Your task to perform on an android device: toggle improve location accuracy Image 0: 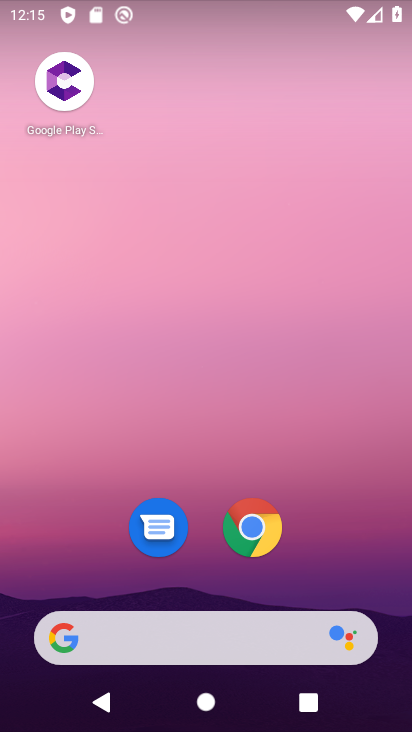
Step 0: drag from (212, 593) to (267, 16)
Your task to perform on an android device: toggle improve location accuracy Image 1: 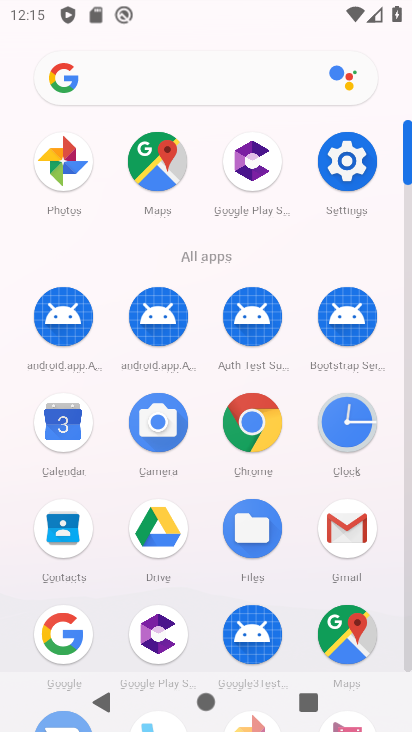
Step 1: click (351, 160)
Your task to perform on an android device: toggle improve location accuracy Image 2: 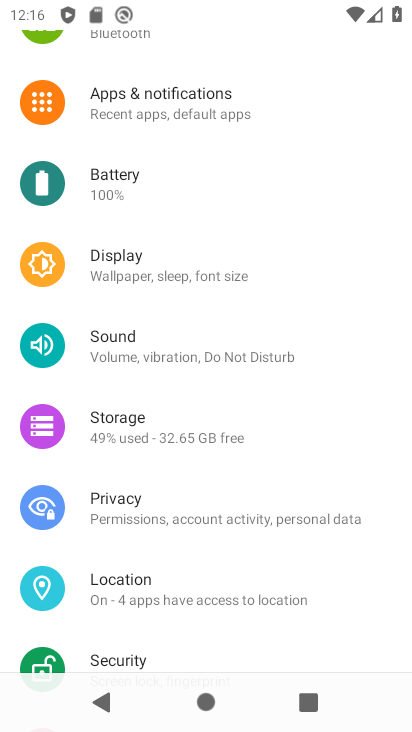
Step 2: click (147, 596)
Your task to perform on an android device: toggle improve location accuracy Image 3: 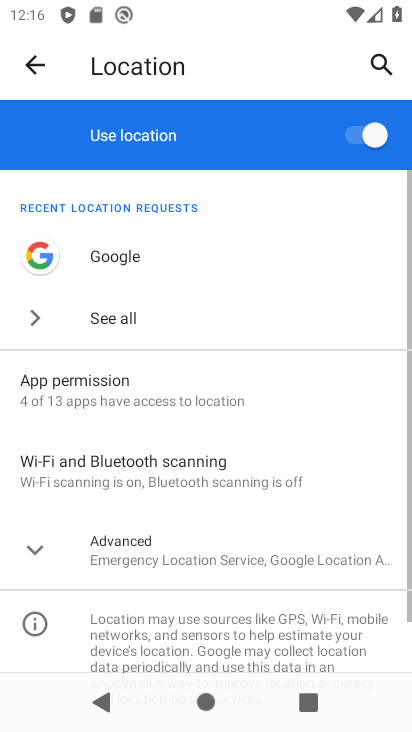
Step 3: click (10, 541)
Your task to perform on an android device: toggle improve location accuracy Image 4: 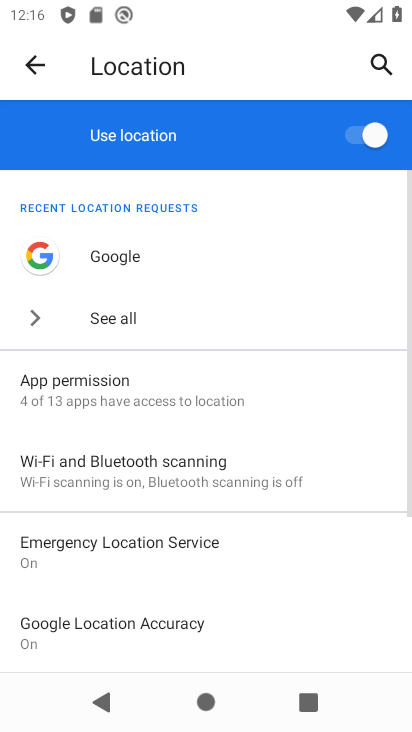
Step 4: drag from (146, 590) to (137, 385)
Your task to perform on an android device: toggle improve location accuracy Image 5: 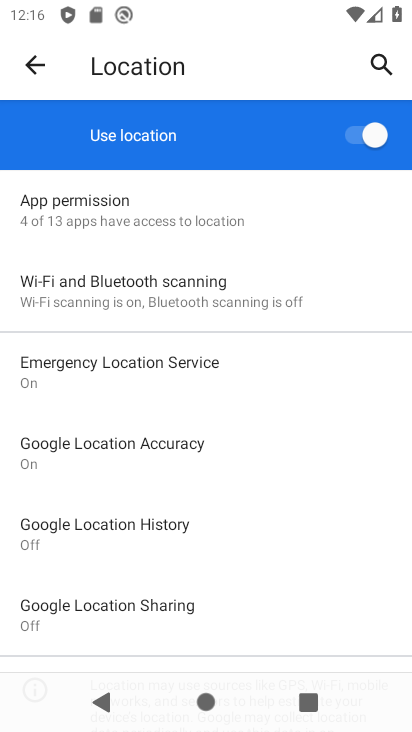
Step 5: click (134, 456)
Your task to perform on an android device: toggle improve location accuracy Image 6: 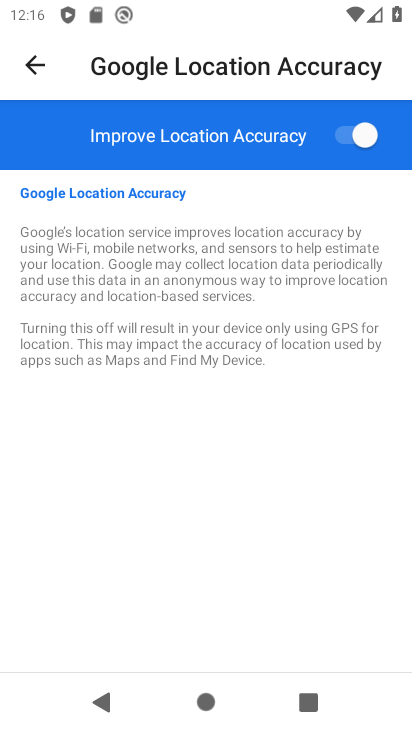
Step 6: click (341, 140)
Your task to perform on an android device: toggle improve location accuracy Image 7: 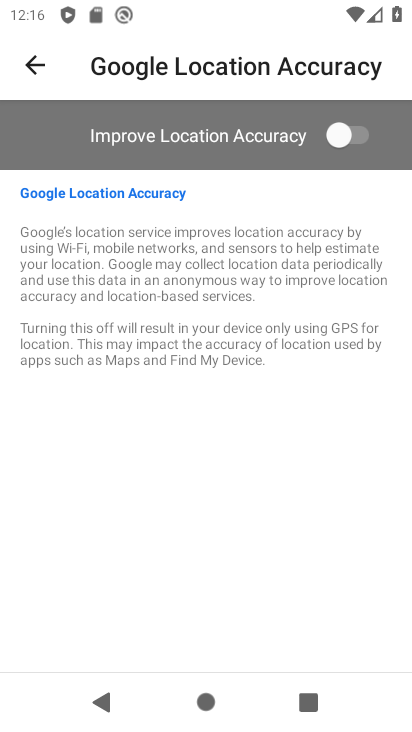
Step 7: task complete